Your task to perform on an android device: check data usage Image 0: 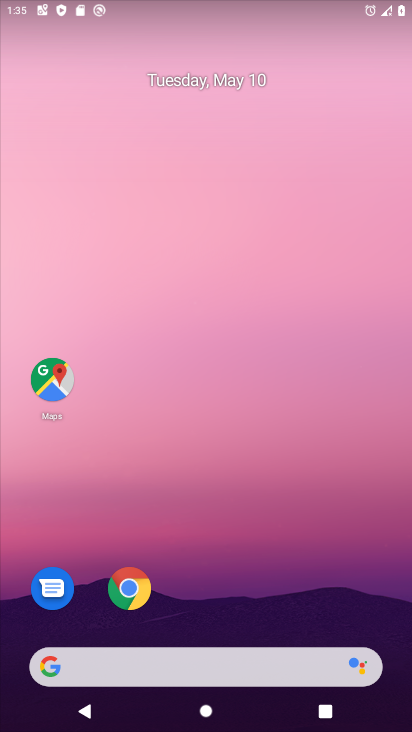
Step 0: drag from (305, 625) to (341, 271)
Your task to perform on an android device: check data usage Image 1: 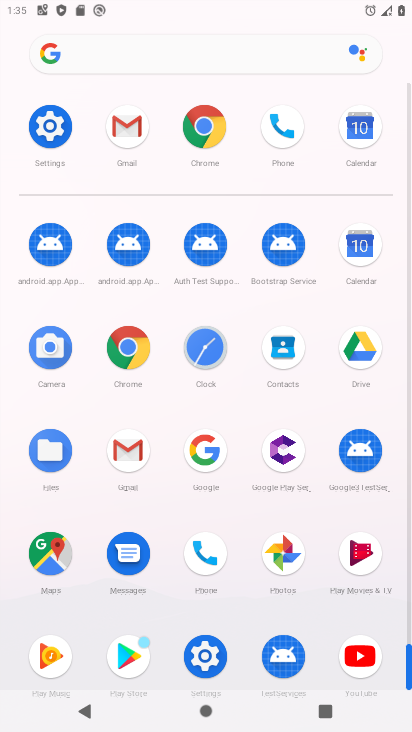
Step 1: click (40, 124)
Your task to perform on an android device: check data usage Image 2: 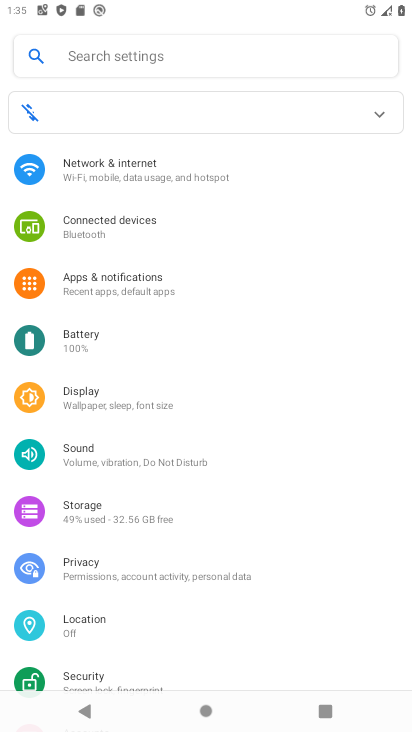
Step 2: click (178, 175)
Your task to perform on an android device: check data usage Image 3: 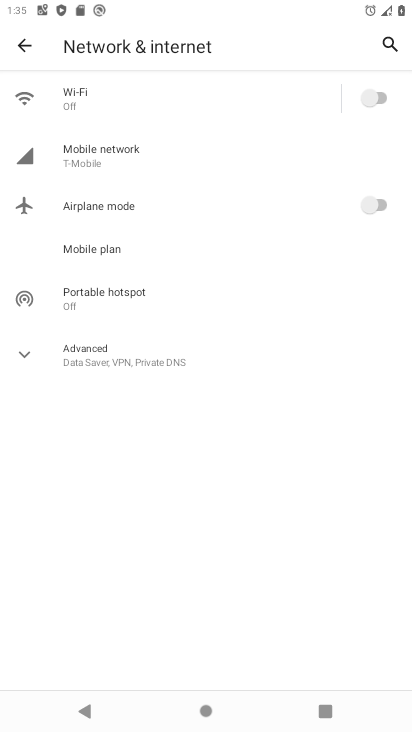
Step 3: click (127, 158)
Your task to perform on an android device: check data usage Image 4: 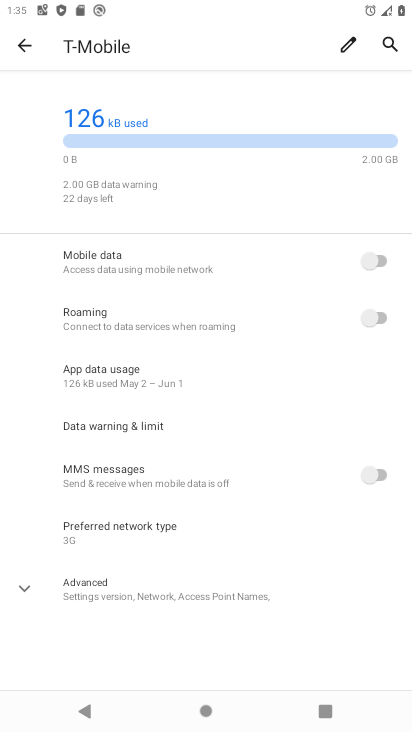
Step 4: click (170, 270)
Your task to perform on an android device: check data usage Image 5: 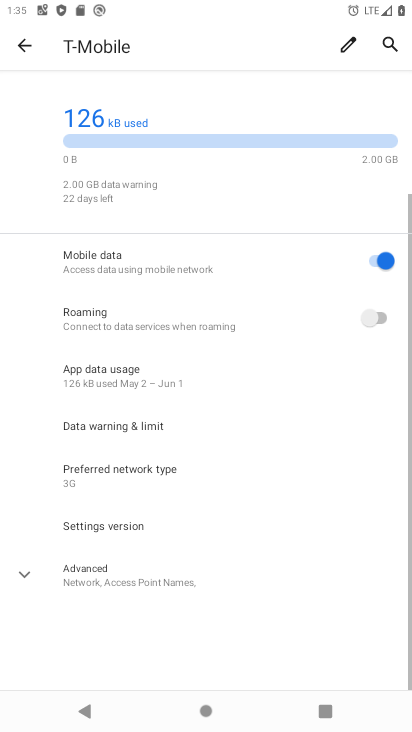
Step 5: click (170, 270)
Your task to perform on an android device: check data usage Image 6: 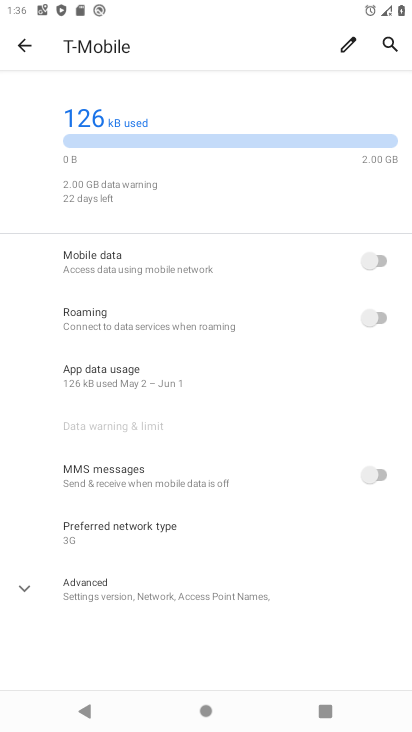
Step 6: click (112, 594)
Your task to perform on an android device: check data usage Image 7: 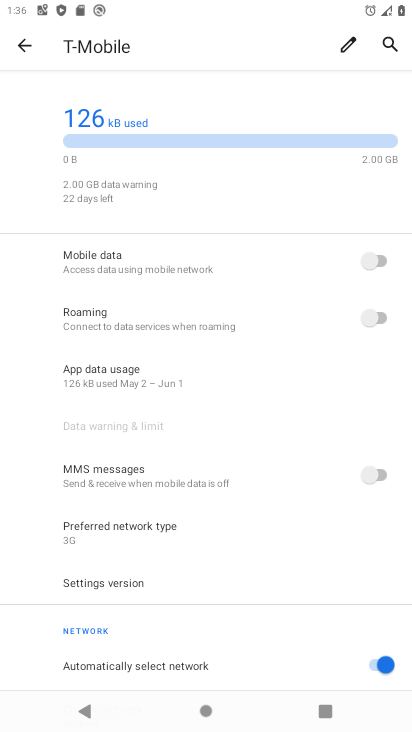
Step 7: drag from (155, 485) to (163, 398)
Your task to perform on an android device: check data usage Image 8: 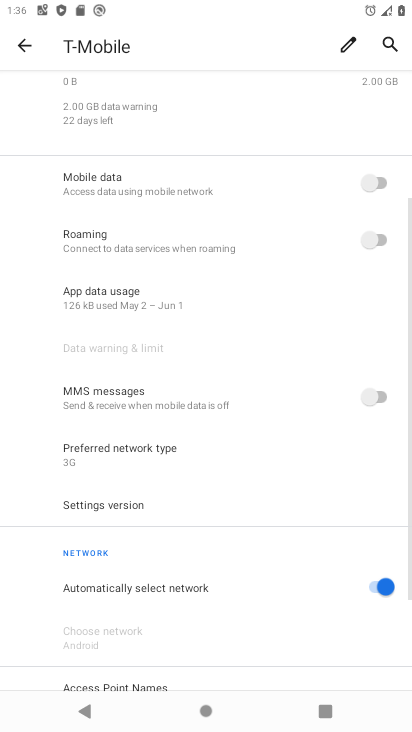
Step 8: click (113, 295)
Your task to perform on an android device: check data usage Image 9: 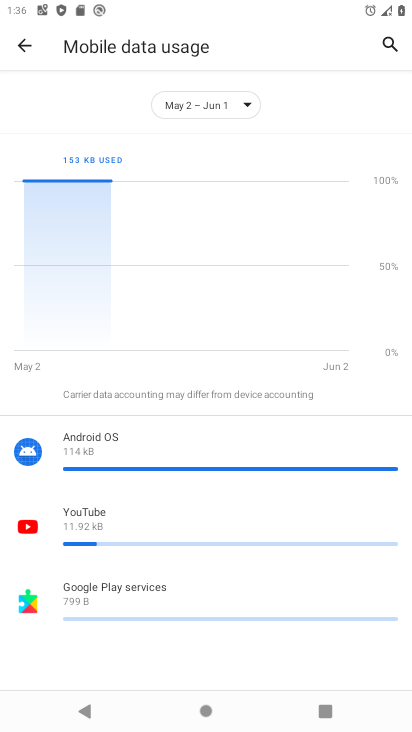
Step 9: task complete